Your task to perform on an android device: Open the Play Movies app and select the watchlist tab. Image 0: 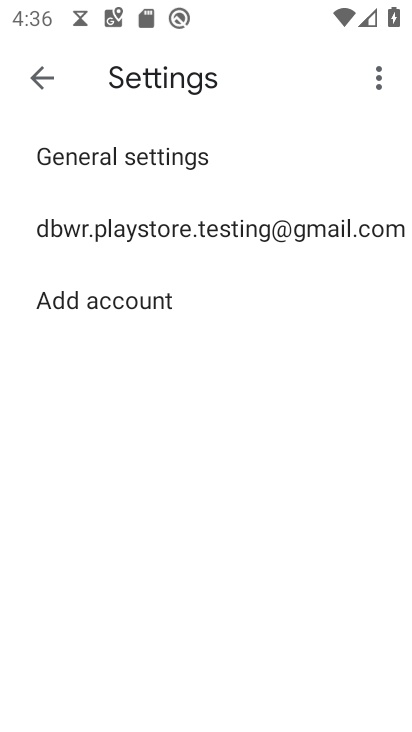
Step 0: click (39, 78)
Your task to perform on an android device: Open the Play Movies app and select the watchlist tab. Image 1: 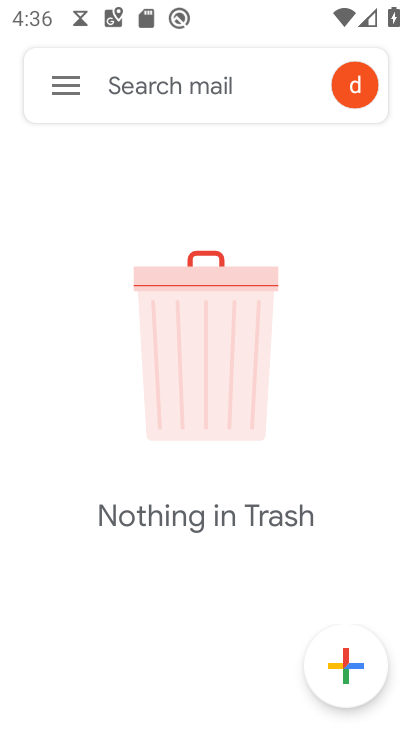
Step 1: click (49, 92)
Your task to perform on an android device: Open the Play Movies app and select the watchlist tab. Image 2: 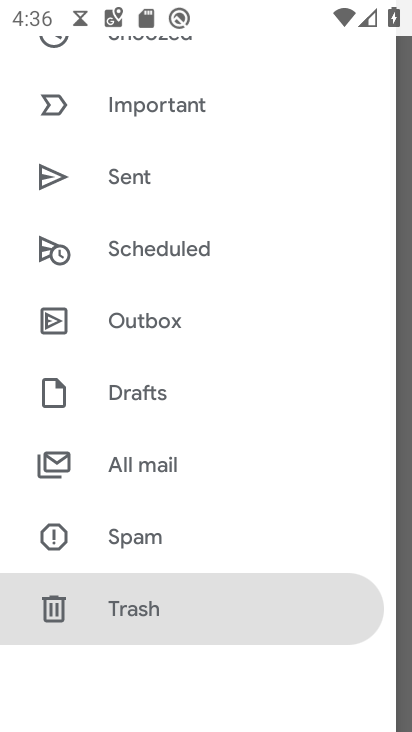
Step 2: press back button
Your task to perform on an android device: Open the Play Movies app and select the watchlist tab. Image 3: 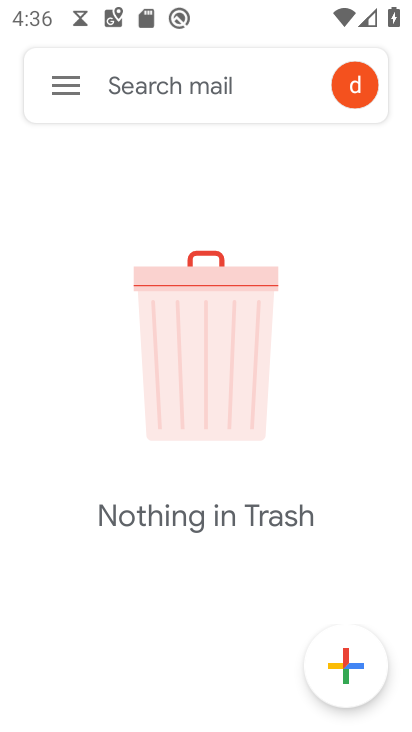
Step 3: press home button
Your task to perform on an android device: Open the Play Movies app and select the watchlist tab. Image 4: 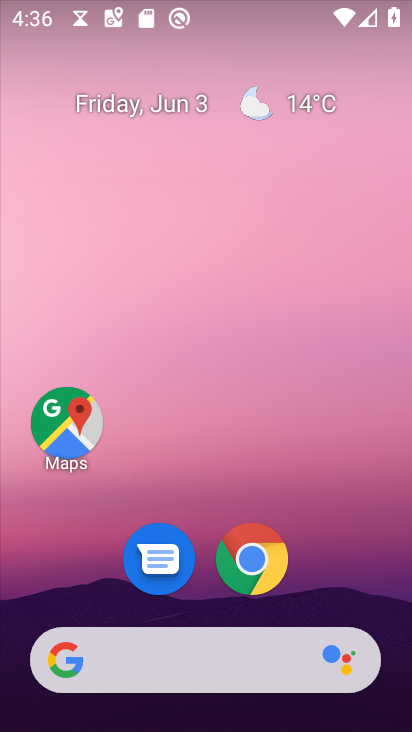
Step 4: drag from (215, 658) to (154, 215)
Your task to perform on an android device: Open the Play Movies app and select the watchlist tab. Image 5: 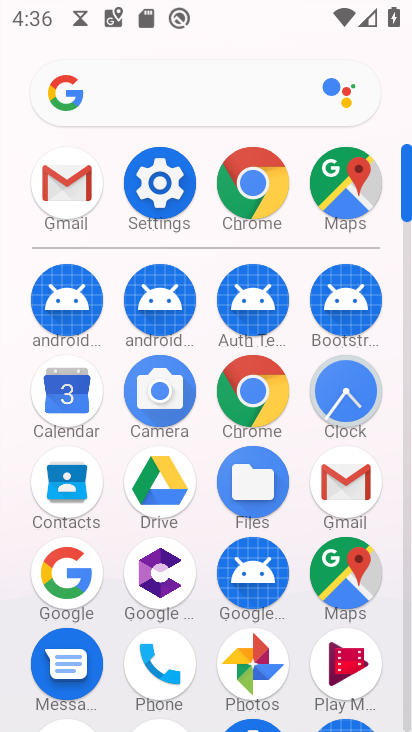
Step 5: drag from (287, 531) to (258, 245)
Your task to perform on an android device: Open the Play Movies app and select the watchlist tab. Image 6: 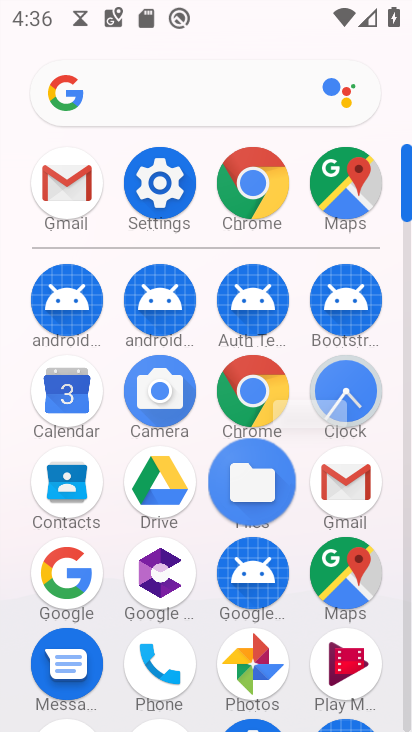
Step 6: drag from (288, 419) to (279, 180)
Your task to perform on an android device: Open the Play Movies app and select the watchlist tab. Image 7: 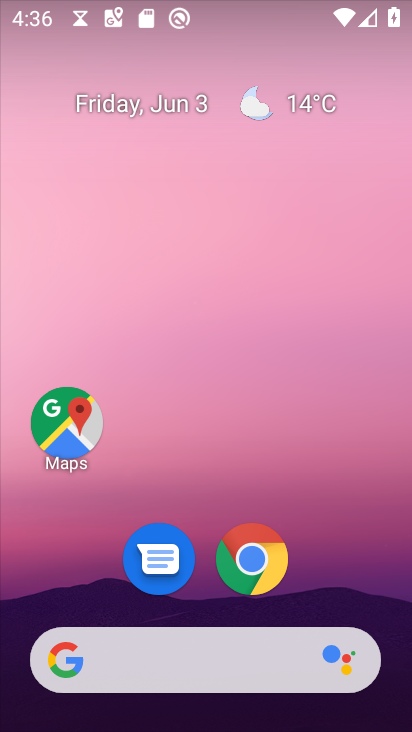
Step 7: drag from (243, 645) to (174, 176)
Your task to perform on an android device: Open the Play Movies app and select the watchlist tab. Image 8: 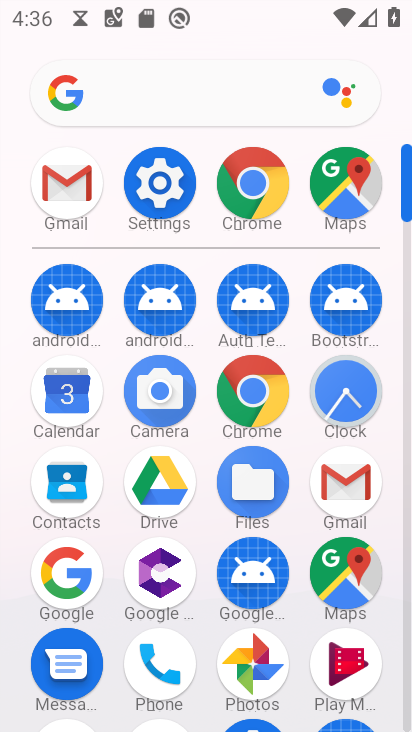
Step 8: drag from (213, 637) to (172, 405)
Your task to perform on an android device: Open the Play Movies app and select the watchlist tab. Image 9: 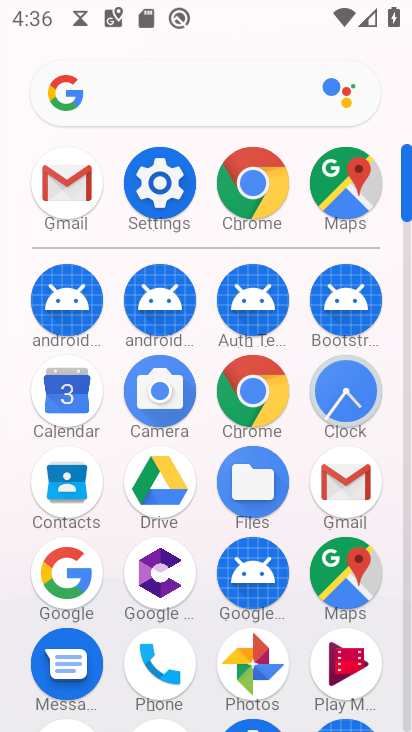
Step 9: drag from (200, 571) to (206, 320)
Your task to perform on an android device: Open the Play Movies app and select the watchlist tab. Image 10: 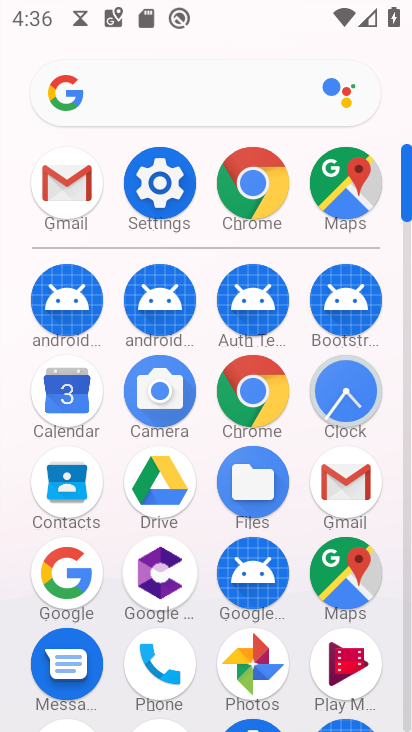
Step 10: drag from (213, 556) to (211, 224)
Your task to perform on an android device: Open the Play Movies app and select the watchlist tab. Image 11: 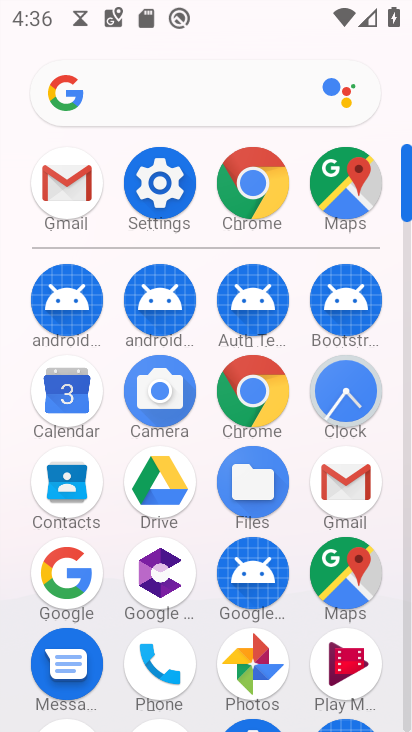
Step 11: drag from (283, 586) to (289, 248)
Your task to perform on an android device: Open the Play Movies app and select the watchlist tab. Image 12: 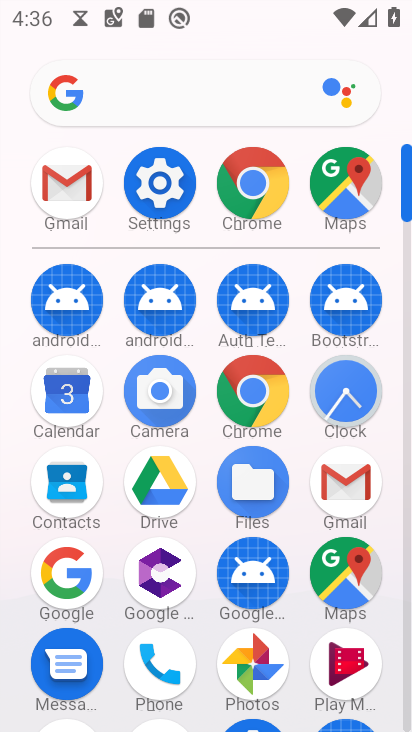
Step 12: drag from (181, 587) to (150, 302)
Your task to perform on an android device: Open the Play Movies app and select the watchlist tab. Image 13: 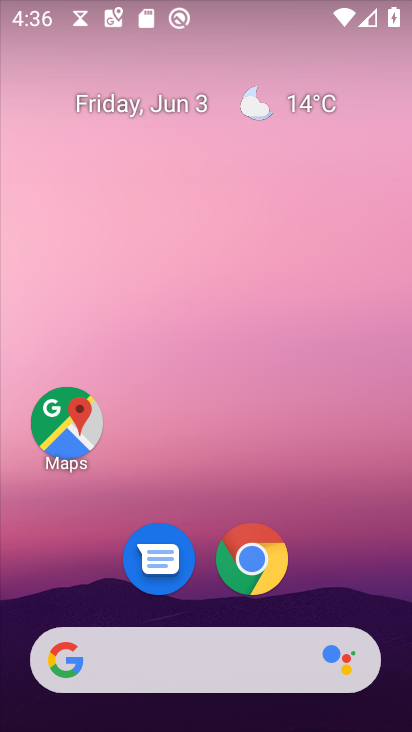
Step 13: drag from (206, 552) to (206, 433)
Your task to perform on an android device: Open the Play Movies app and select the watchlist tab. Image 14: 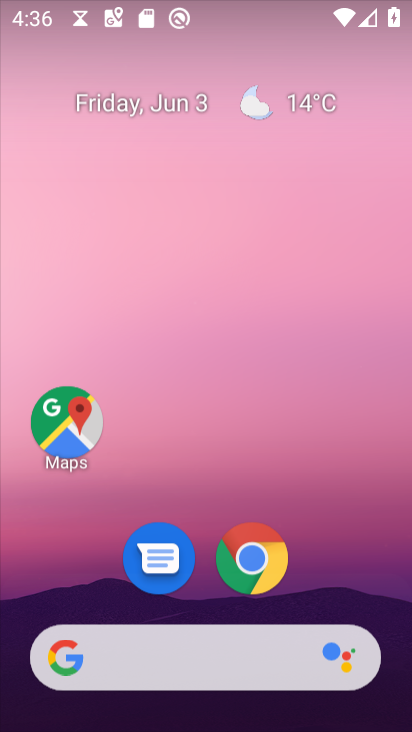
Step 14: drag from (240, 602) to (223, 223)
Your task to perform on an android device: Open the Play Movies app and select the watchlist tab. Image 15: 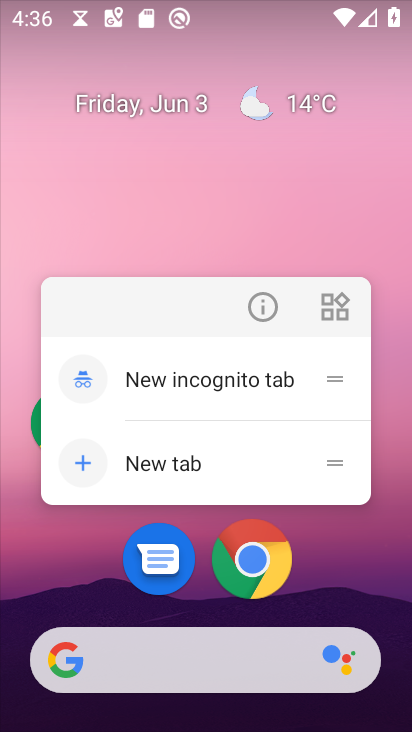
Step 15: drag from (217, 663) to (204, 180)
Your task to perform on an android device: Open the Play Movies app and select the watchlist tab. Image 16: 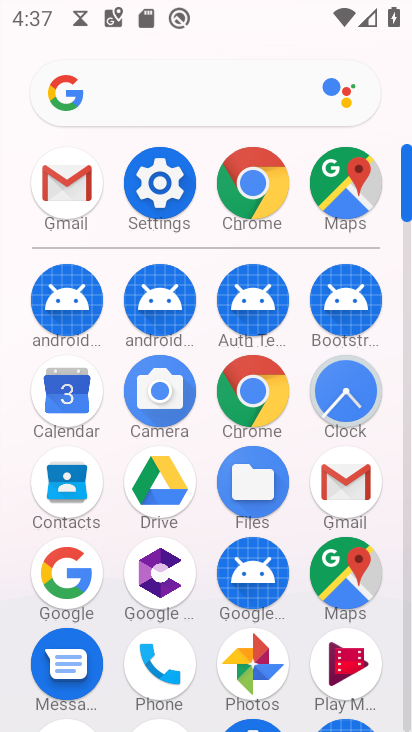
Step 16: drag from (306, 552) to (326, 135)
Your task to perform on an android device: Open the Play Movies app and select the watchlist tab. Image 17: 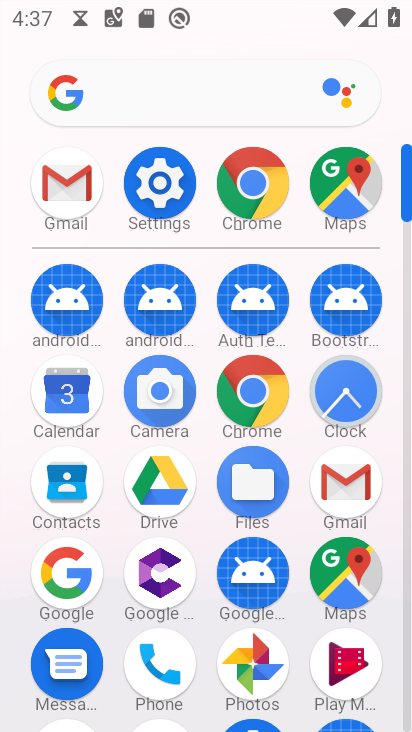
Step 17: click (350, 664)
Your task to perform on an android device: Open the Play Movies app and select the watchlist tab. Image 18: 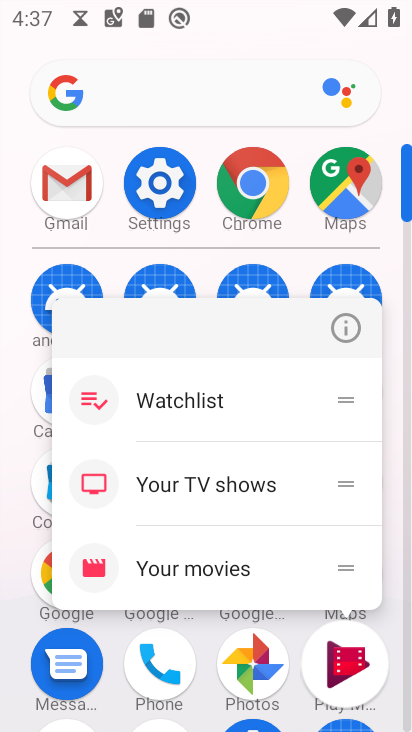
Step 18: click (341, 662)
Your task to perform on an android device: Open the Play Movies app and select the watchlist tab. Image 19: 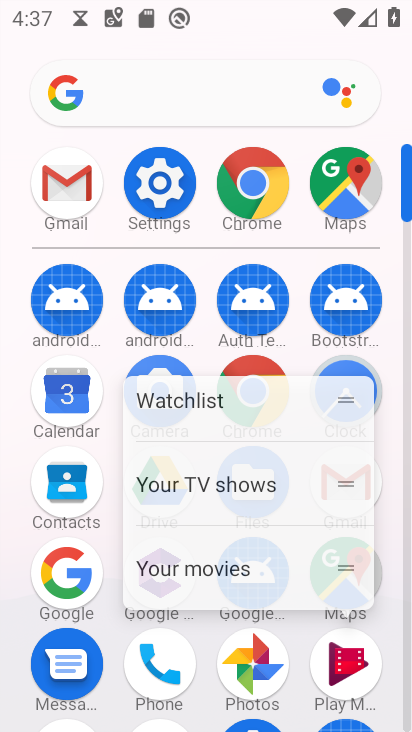
Step 19: click (340, 660)
Your task to perform on an android device: Open the Play Movies app and select the watchlist tab. Image 20: 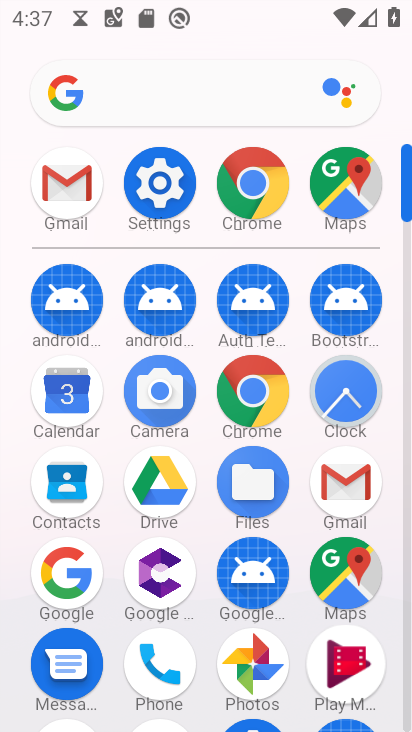
Step 20: click (339, 659)
Your task to perform on an android device: Open the Play Movies app and select the watchlist tab. Image 21: 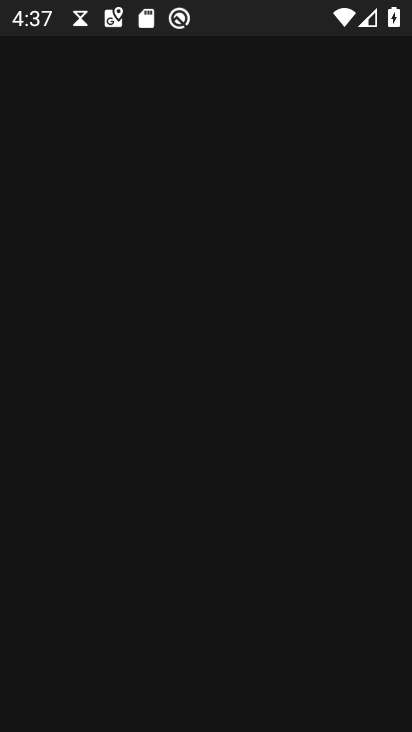
Step 21: click (338, 658)
Your task to perform on an android device: Open the Play Movies app and select the watchlist tab. Image 22: 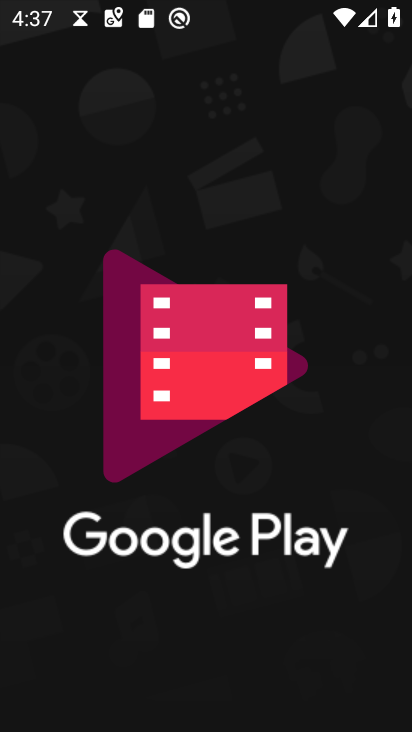
Step 22: drag from (286, 597) to (225, 161)
Your task to perform on an android device: Open the Play Movies app and select the watchlist tab. Image 23: 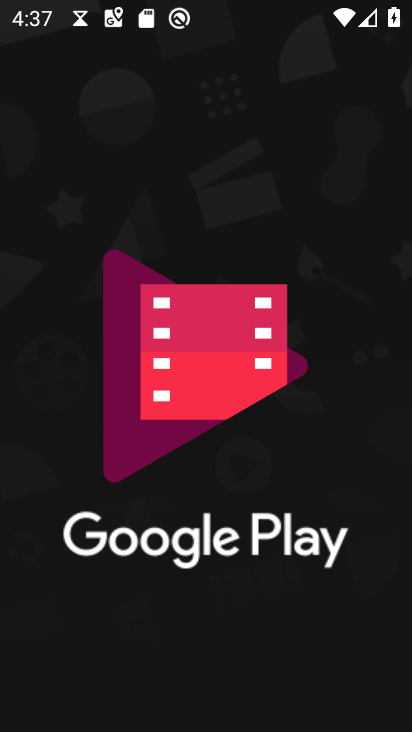
Step 23: drag from (253, 522) to (249, 168)
Your task to perform on an android device: Open the Play Movies app and select the watchlist tab. Image 24: 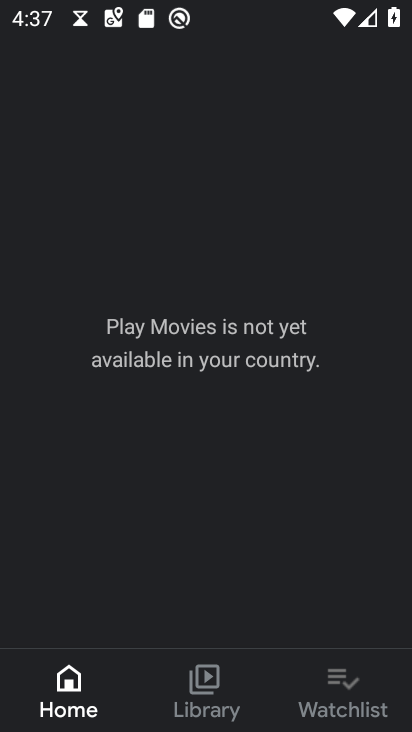
Step 24: drag from (235, 553) to (137, 218)
Your task to perform on an android device: Open the Play Movies app and select the watchlist tab. Image 25: 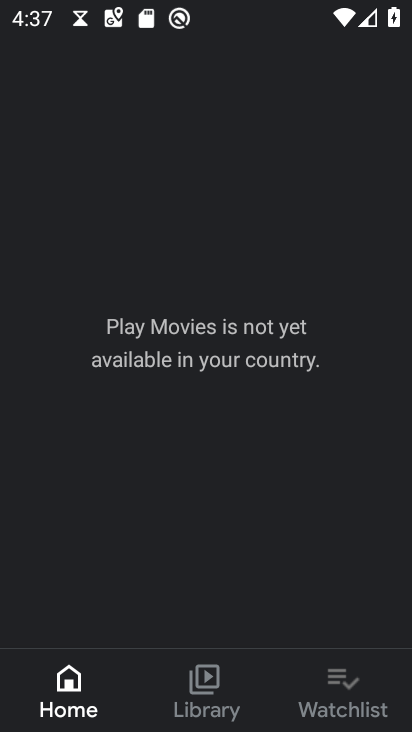
Step 25: click (342, 696)
Your task to perform on an android device: Open the Play Movies app and select the watchlist tab. Image 26: 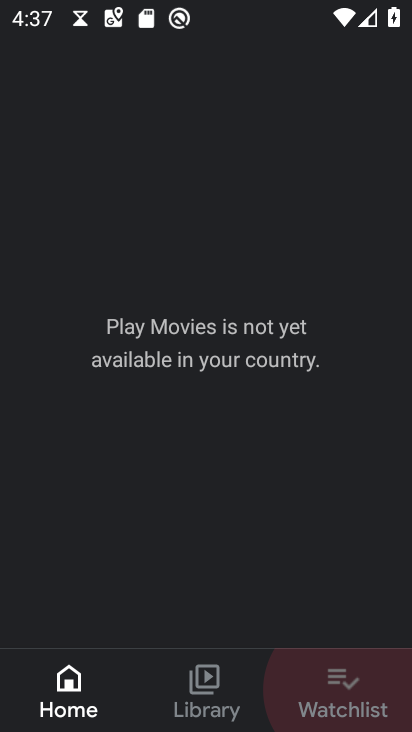
Step 26: click (344, 697)
Your task to perform on an android device: Open the Play Movies app and select the watchlist tab. Image 27: 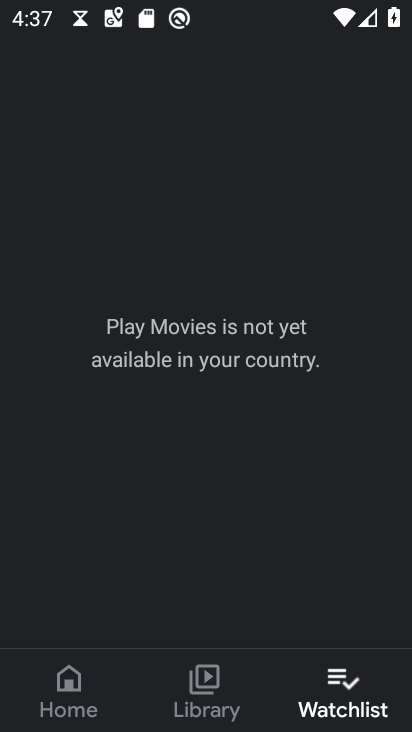
Step 27: click (343, 704)
Your task to perform on an android device: Open the Play Movies app and select the watchlist tab. Image 28: 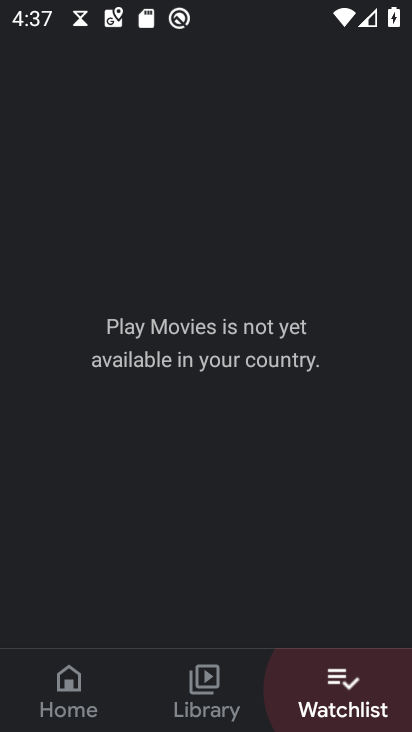
Step 28: click (342, 705)
Your task to perform on an android device: Open the Play Movies app and select the watchlist tab. Image 29: 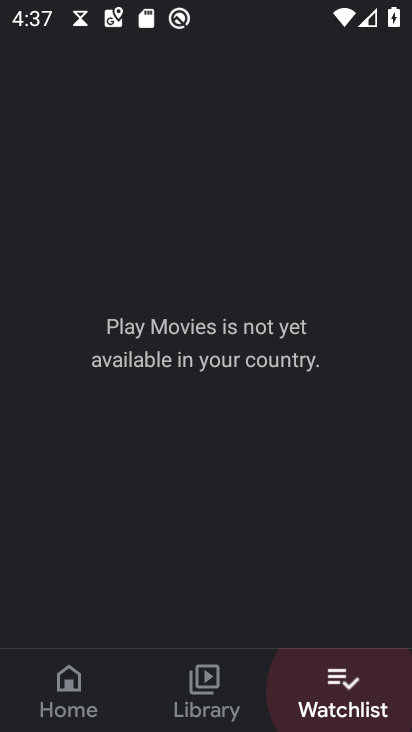
Step 29: click (337, 699)
Your task to perform on an android device: Open the Play Movies app and select the watchlist tab. Image 30: 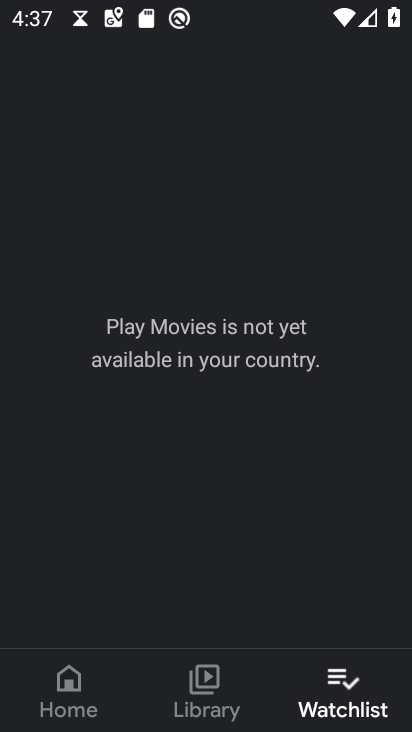
Step 30: click (337, 699)
Your task to perform on an android device: Open the Play Movies app and select the watchlist tab. Image 31: 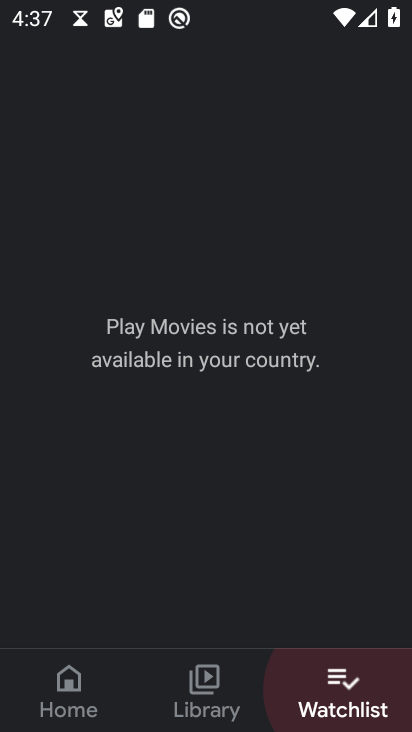
Step 31: click (338, 692)
Your task to perform on an android device: Open the Play Movies app and select the watchlist tab. Image 32: 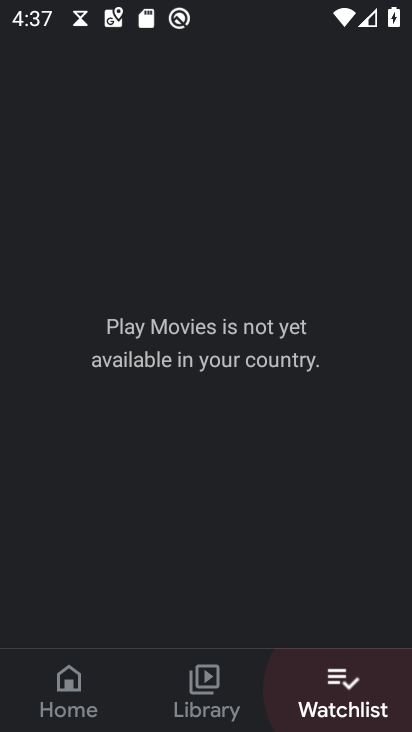
Step 32: click (338, 692)
Your task to perform on an android device: Open the Play Movies app and select the watchlist tab. Image 33: 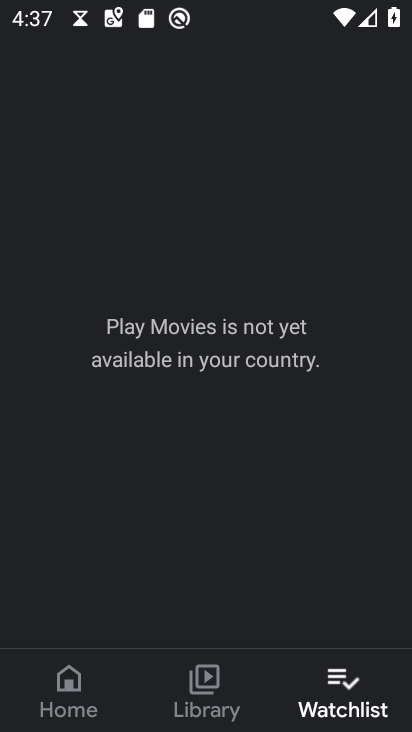
Step 33: task complete